Your task to perform on an android device: Open settings on Google Maps Image 0: 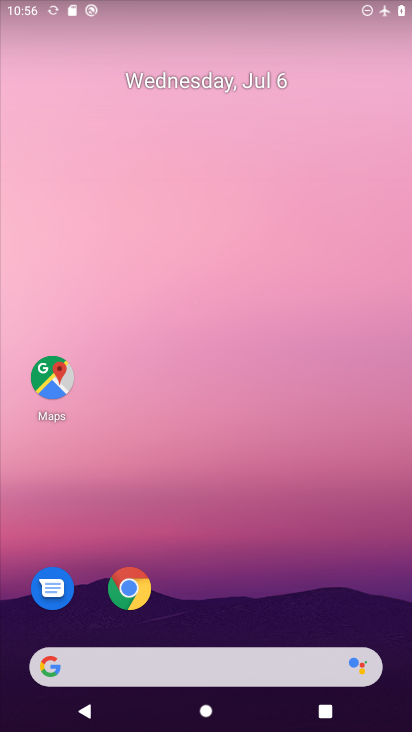
Step 0: drag from (220, 630) to (211, 91)
Your task to perform on an android device: Open settings on Google Maps Image 1: 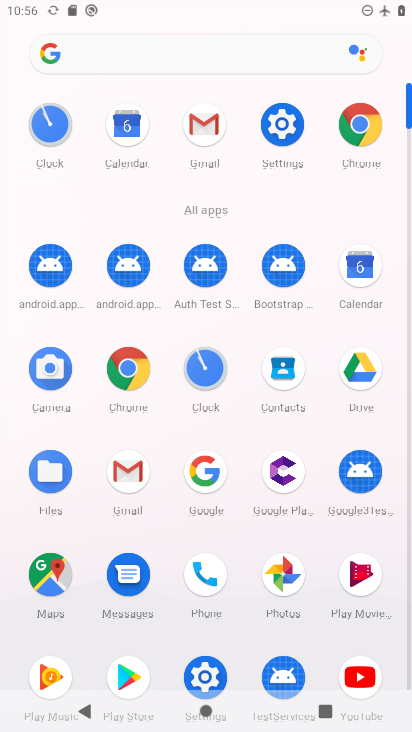
Step 1: click (58, 579)
Your task to perform on an android device: Open settings on Google Maps Image 2: 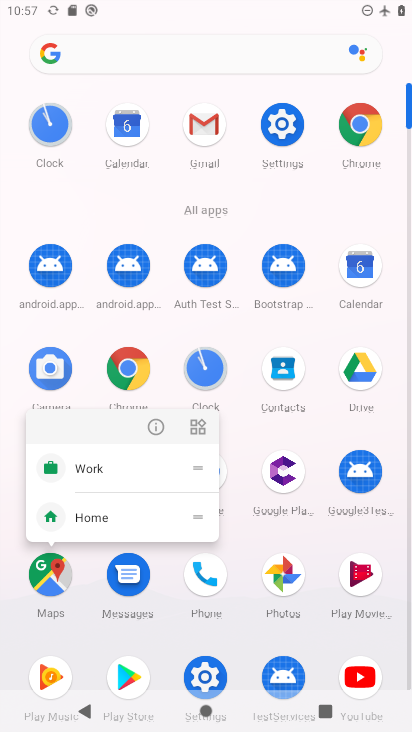
Step 2: click (58, 579)
Your task to perform on an android device: Open settings on Google Maps Image 3: 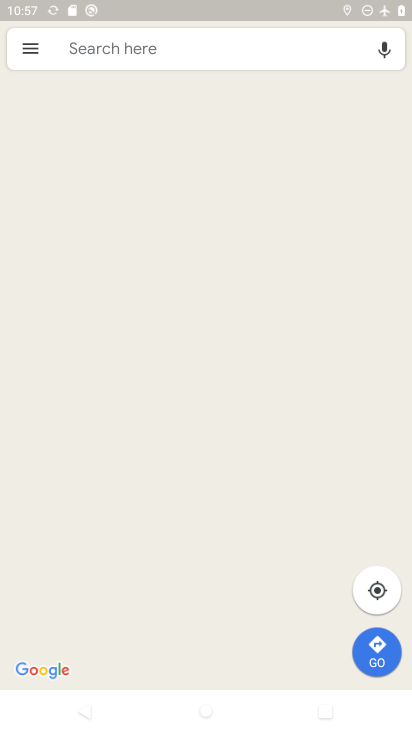
Step 3: click (35, 47)
Your task to perform on an android device: Open settings on Google Maps Image 4: 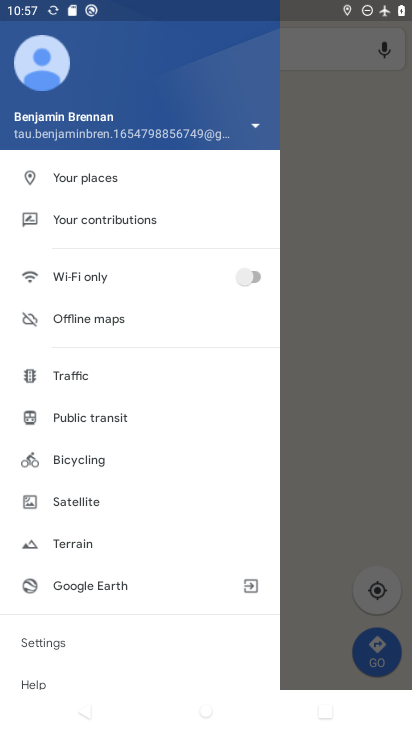
Step 4: click (77, 635)
Your task to perform on an android device: Open settings on Google Maps Image 5: 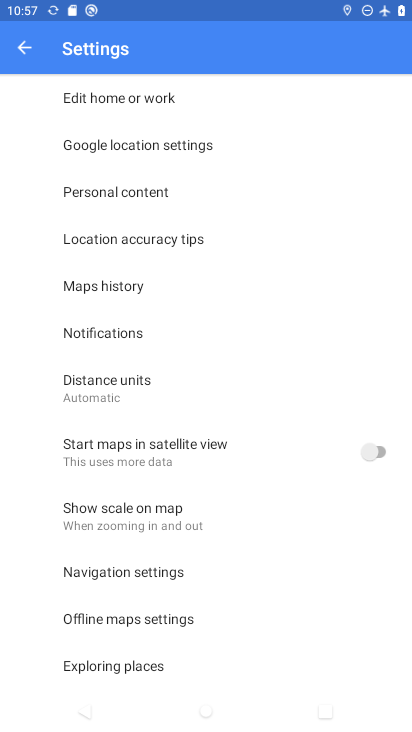
Step 5: task complete